Your task to perform on an android device: change your default location settings in chrome Image 0: 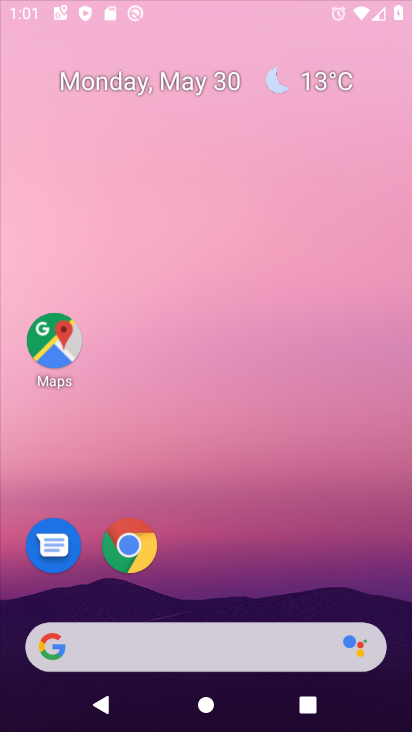
Step 0: press home button
Your task to perform on an android device: change your default location settings in chrome Image 1: 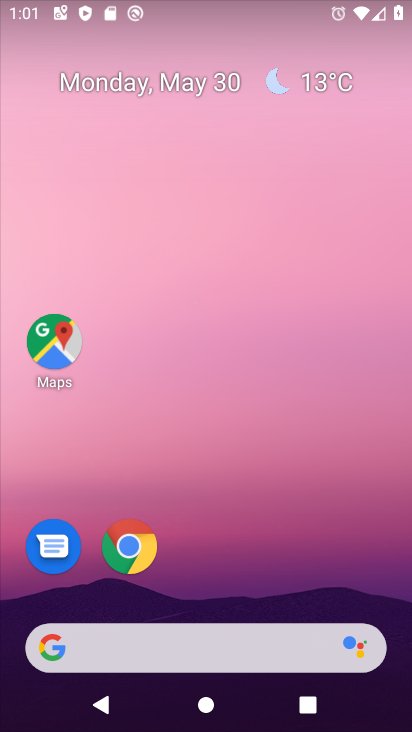
Step 1: click (131, 550)
Your task to perform on an android device: change your default location settings in chrome Image 2: 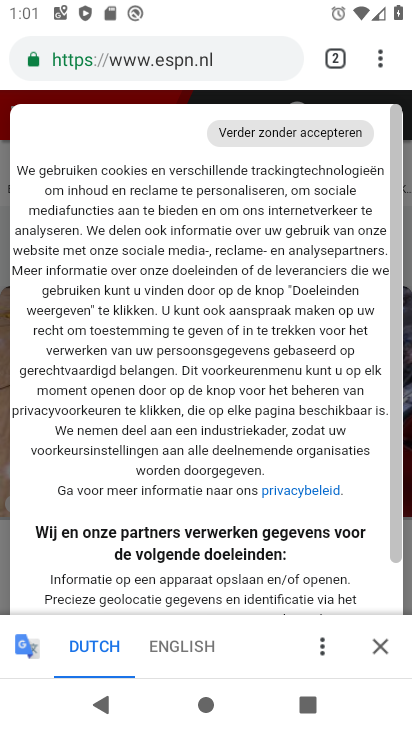
Step 2: drag from (376, 58) to (224, 580)
Your task to perform on an android device: change your default location settings in chrome Image 3: 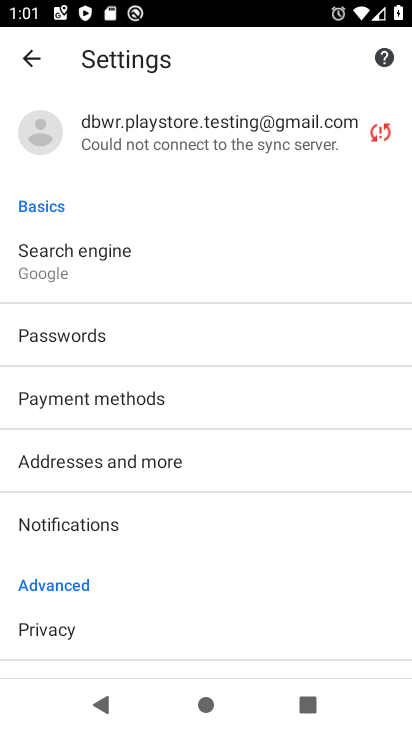
Step 3: drag from (234, 573) to (286, 244)
Your task to perform on an android device: change your default location settings in chrome Image 4: 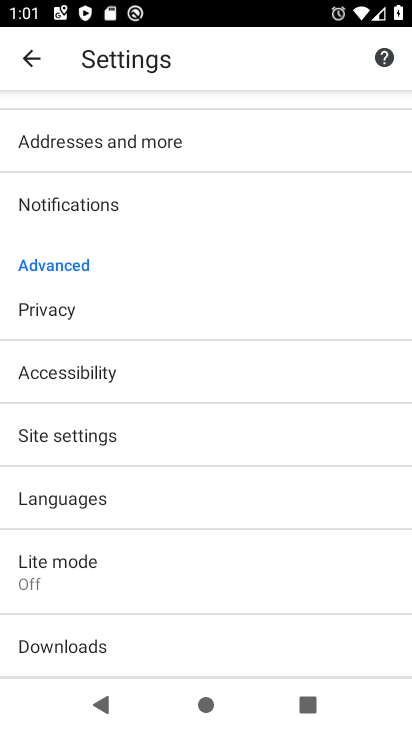
Step 4: click (73, 438)
Your task to perform on an android device: change your default location settings in chrome Image 5: 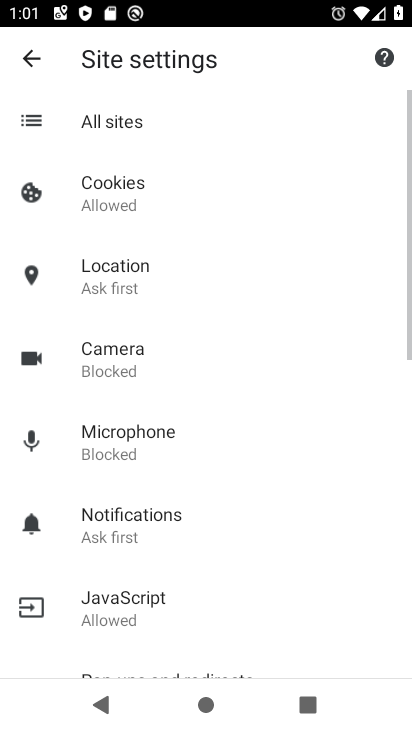
Step 5: click (113, 269)
Your task to perform on an android device: change your default location settings in chrome Image 6: 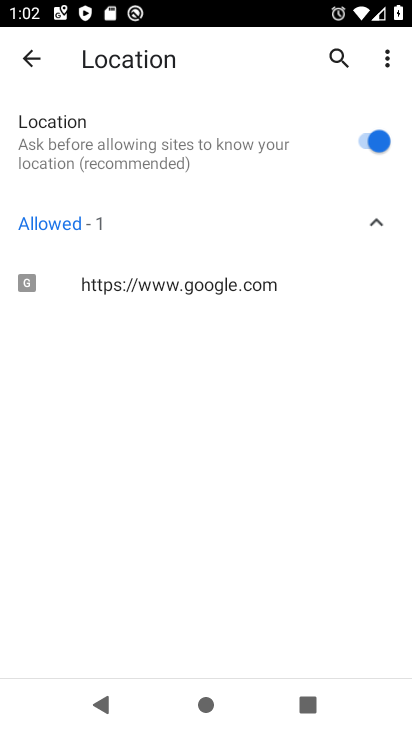
Step 6: click (384, 140)
Your task to perform on an android device: change your default location settings in chrome Image 7: 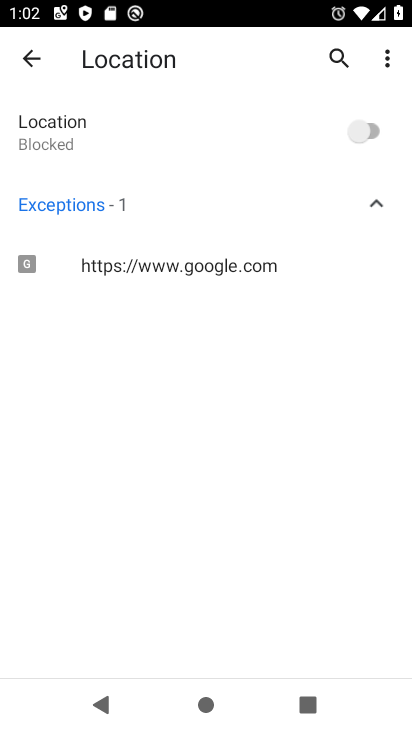
Step 7: task complete